Your task to perform on an android device: Open privacy settings Image 0: 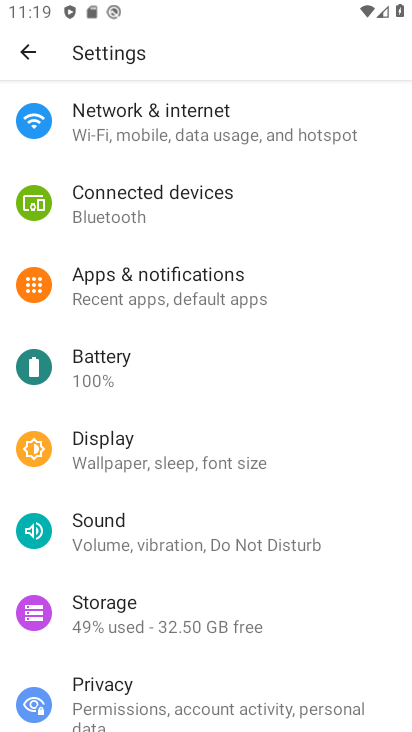
Step 0: drag from (370, 579) to (403, 377)
Your task to perform on an android device: Open privacy settings Image 1: 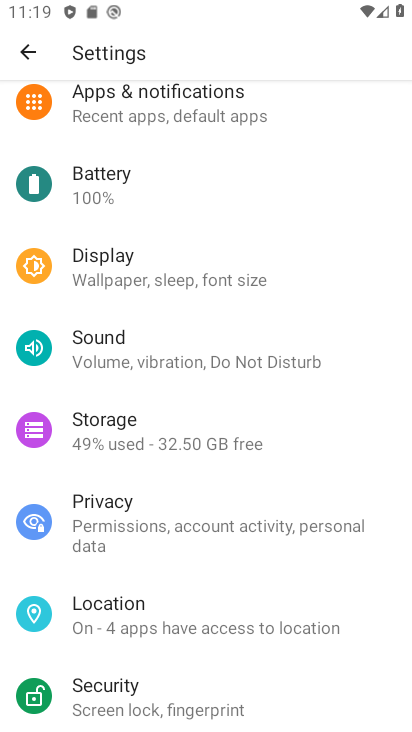
Step 1: drag from (368, 604) to (368, 388)
Your task to perform on an android device: Open privacy settings Image 2: 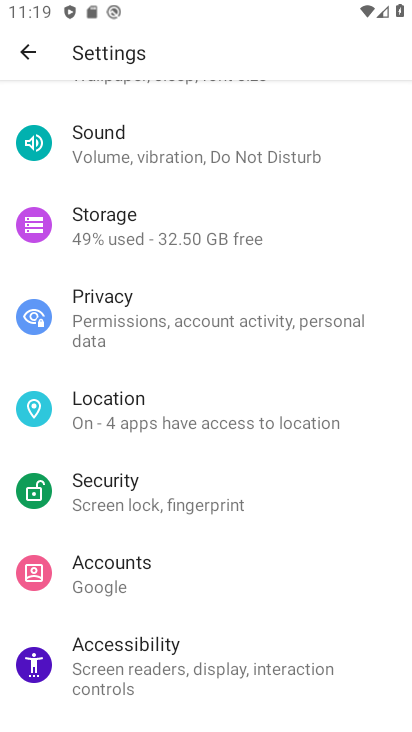
Step 2: drag from (357, 588) to (364, 428)
Your task to perform on an android device: Open privacy settings Image 3: 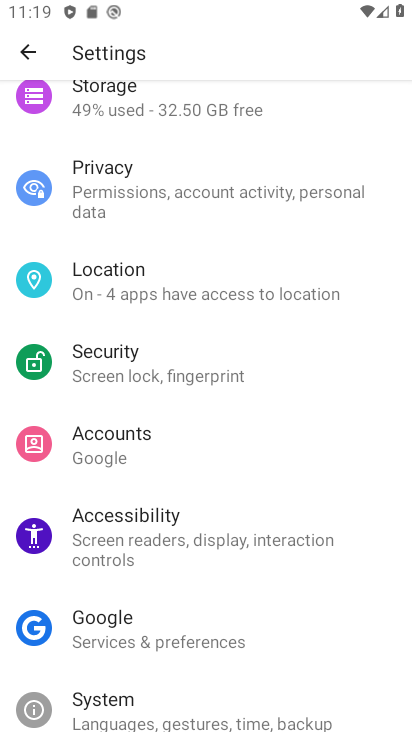
Step 3: click (301, 196)
Your task to perform on an android device: Open privacy settings Image 4: 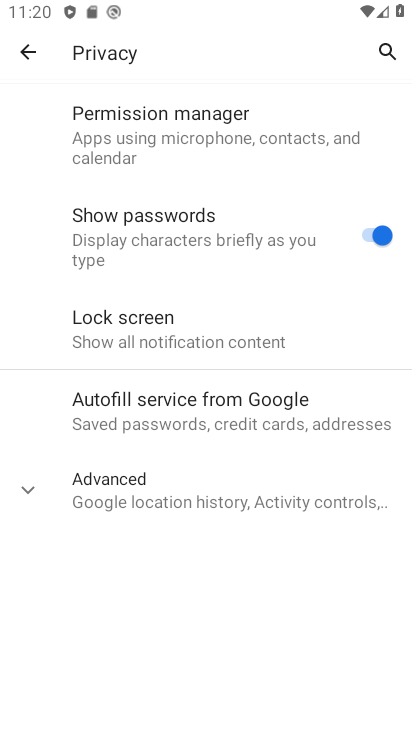
Step 4: task complete